Your task to perform on an android device: toggle airplane mode Image 0: 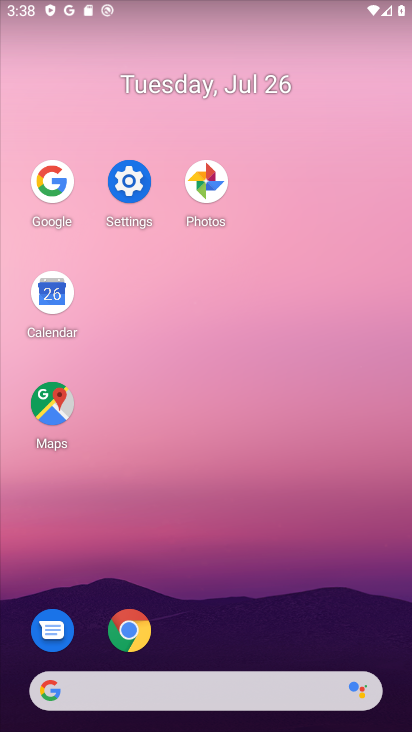
Step 0: click (131, 193)
Your task to perform on an android device: toggle airplane mode Image 1: 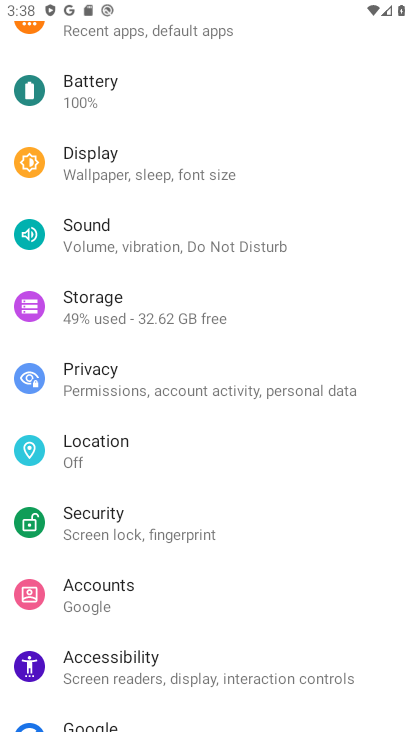
Step 1: drag from (254, 104) to (329, 432)
Your task to perform on an android device: toggle airplane mode Image 2: 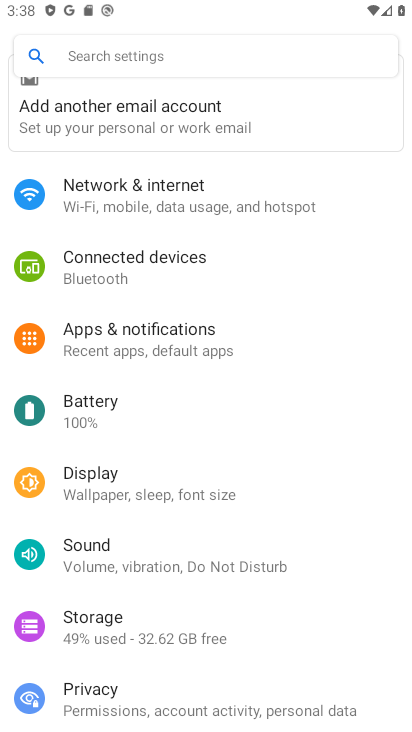
Step 2: click (316, 196)
Your task to perform on an android device: toggle airplane mode Image 3: 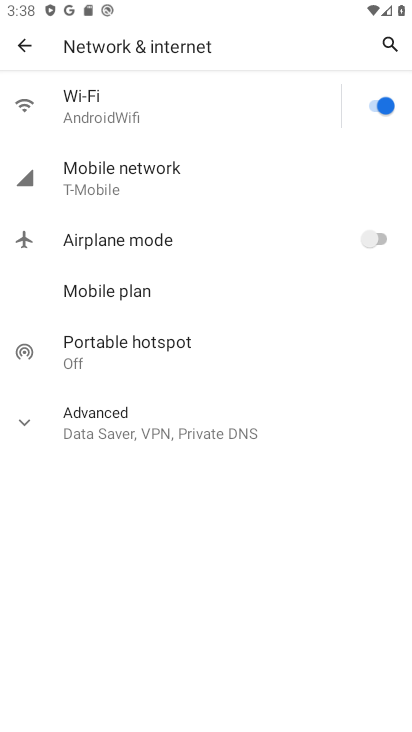
Step 3: click (375, 243)
Your task to perform on an android device: toggle airplane mode Image 4: 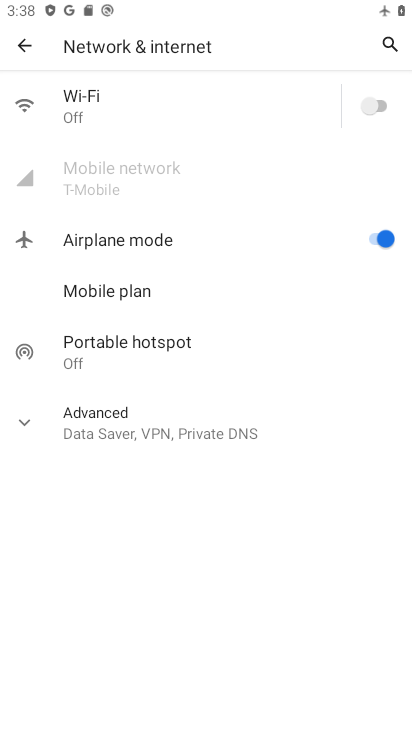
Step 4: task complete